Your task to perform on an android device: install app "PUBG MOBILE" Image 0: 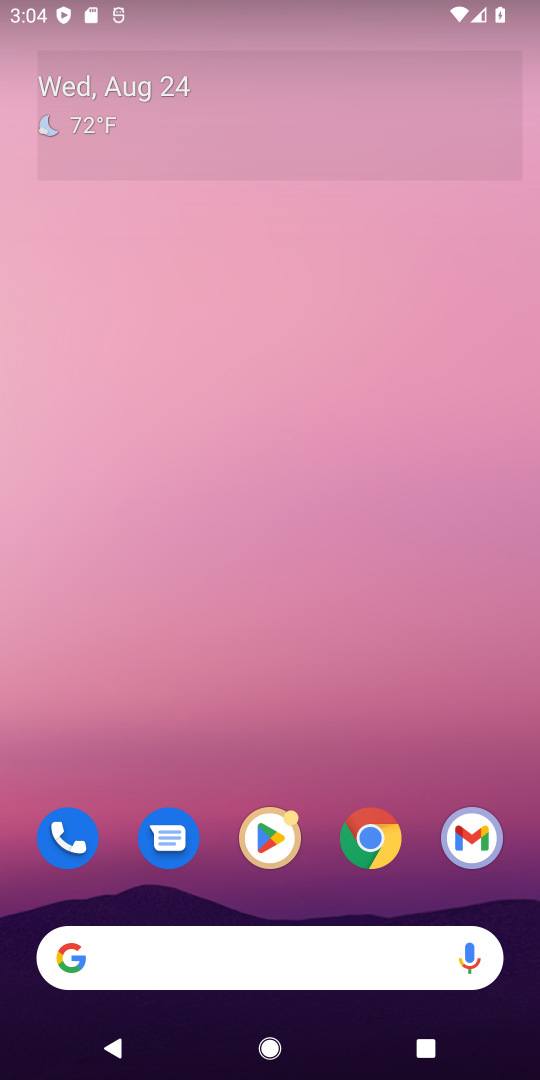
Step 0: press home button
Your task to perform on an android device: install app "PUBG MOBILE" Image 1: 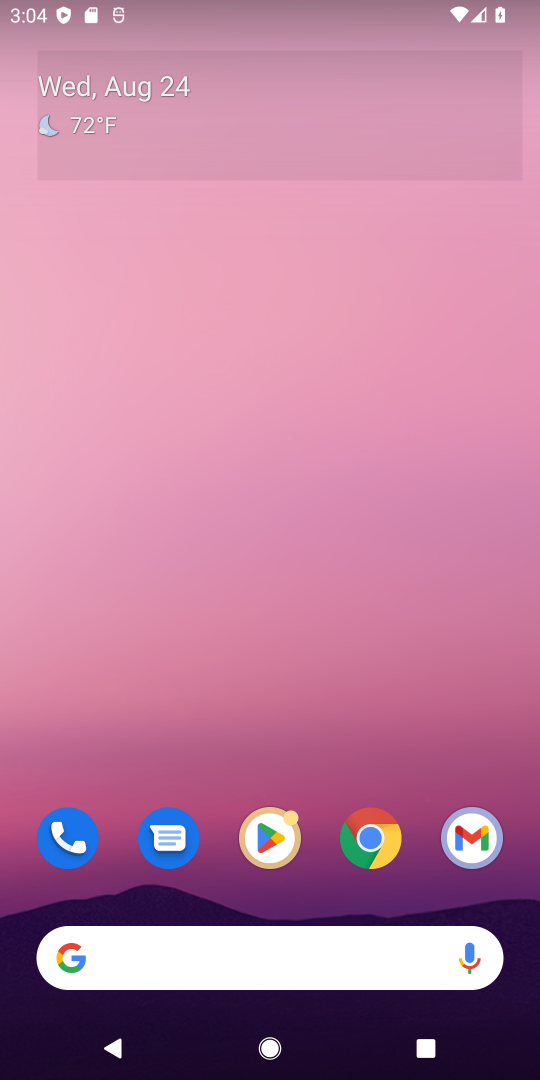
Step 1: drag from (414, 620) to (437, 63)
Your task to perform on an android device: install app "PUBG MOBILE" Image 2: 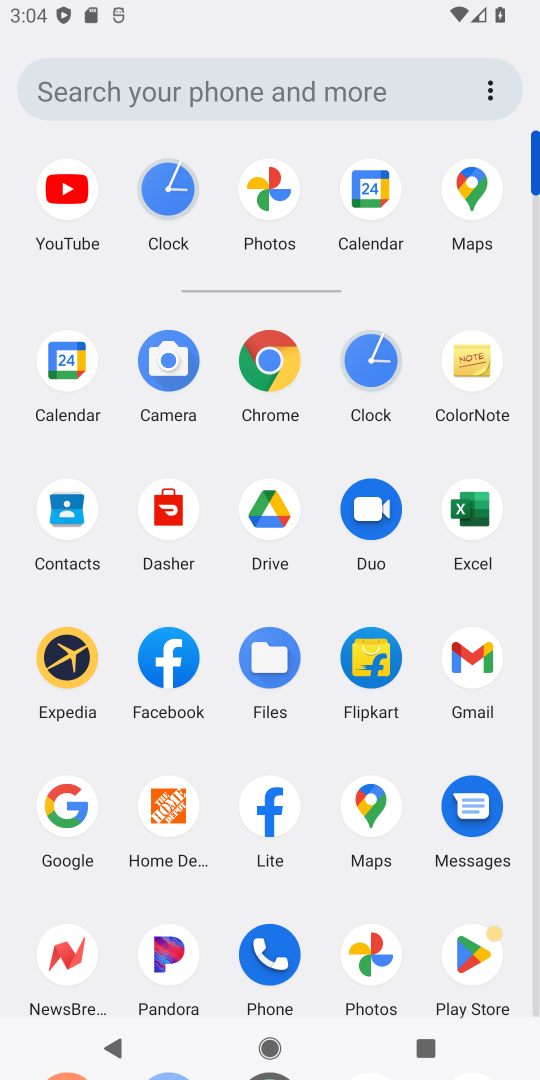
Step 2: click (479, 947)
Your task to perform on an android device: install app "PUBG MOBILE" Image 3: 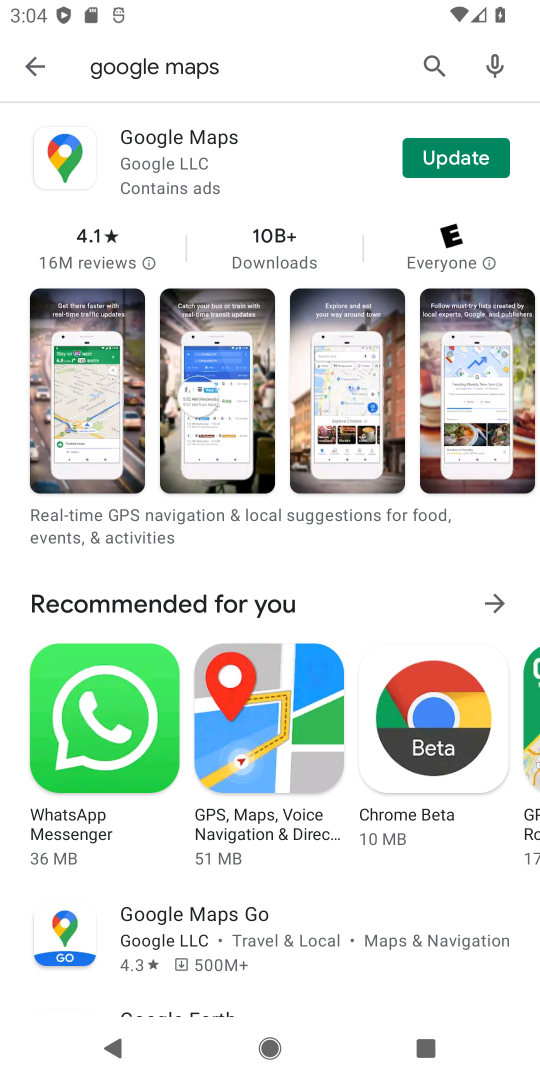
Step 3: press back button
Your task to perform on an android device: install app "PUBG MOBILE" Image 4: 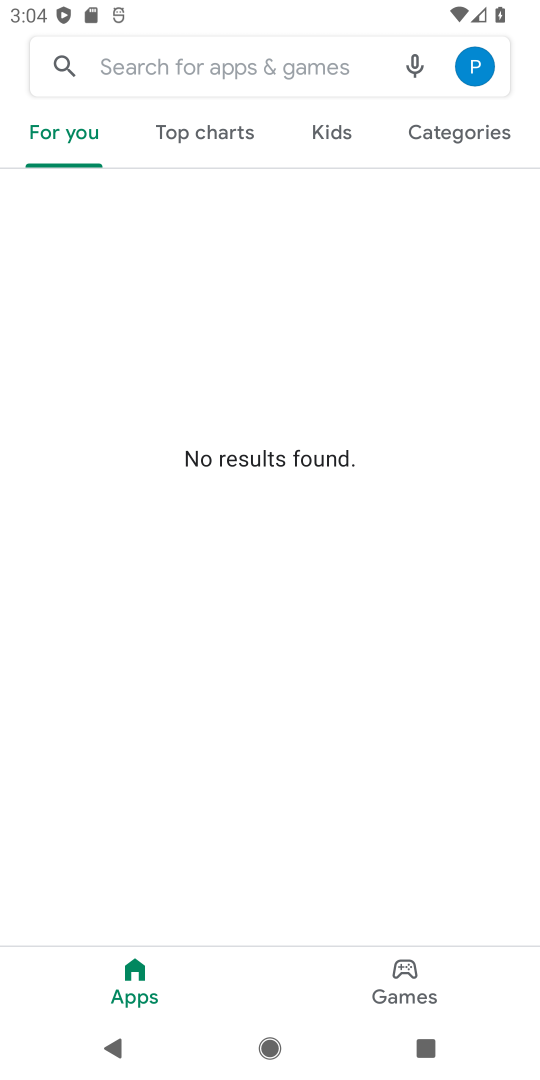
Step 4: click (324, 67)
Your task to perform on an android device: install app "PUBG MOBILE" Image 5: 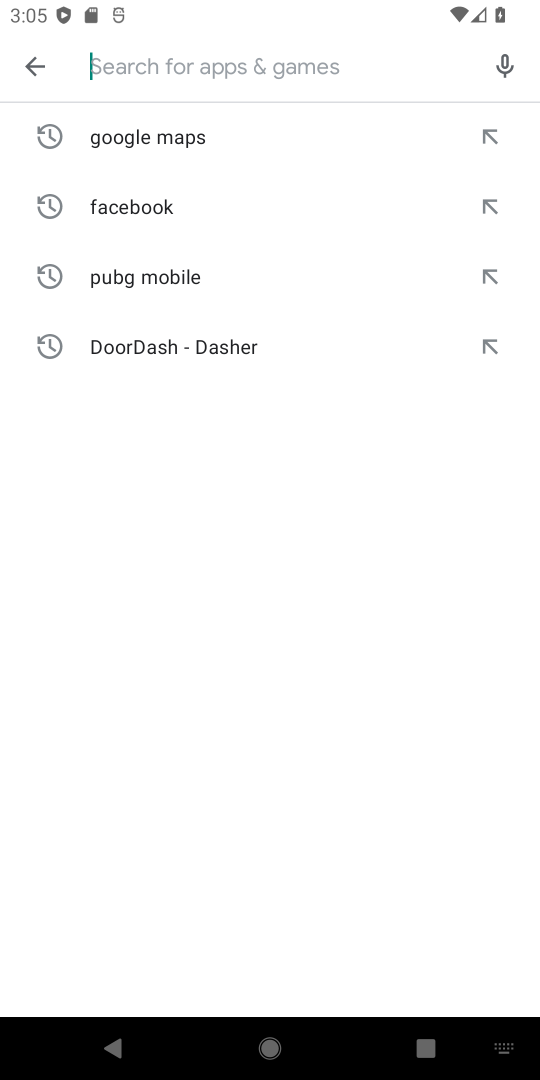
Step 5: click (173, 273)
Your task to perform on an android device: install app "PUBG MOBILE" Image 6: 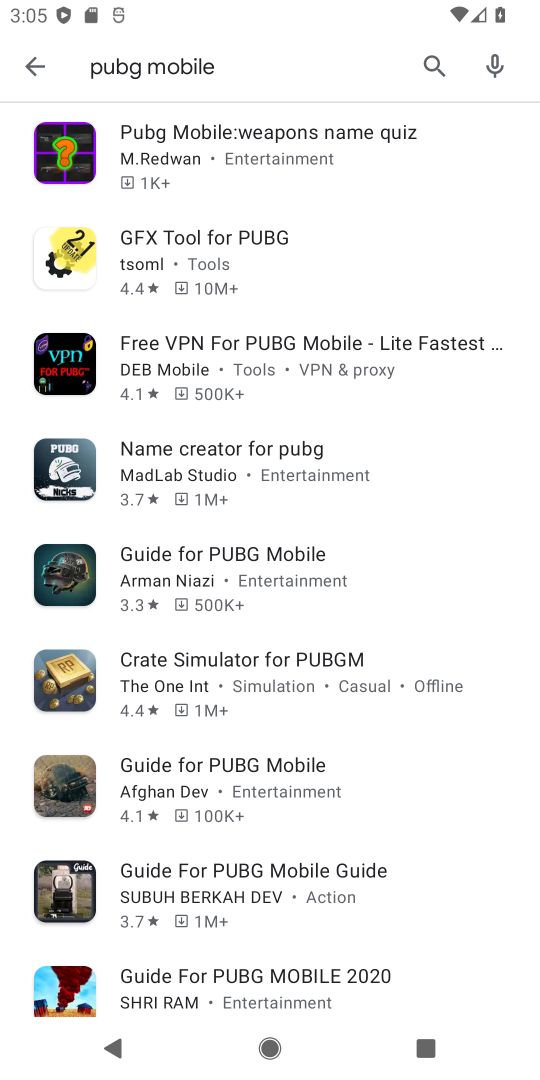
Step 6: task complete